Your task to perform on an android device: Go to Yahoo.com Image 0: 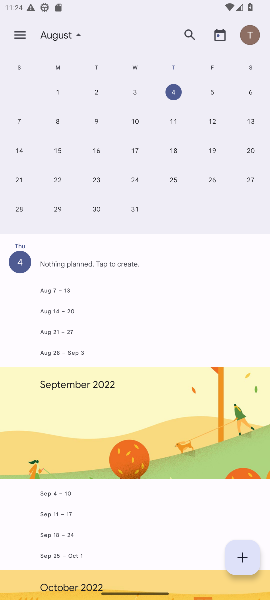
Step 0: press home button
Your task to perform on an android device: Go to Yahoo.com Image 1: 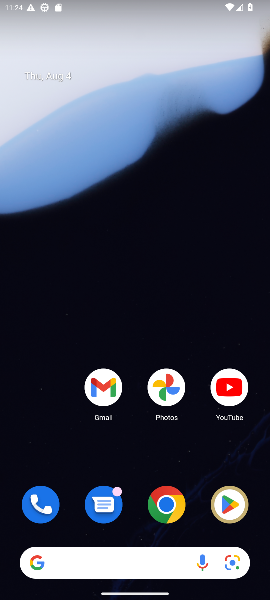
Step 1: click (165, 512)
Your task to perform on an android device: Go to Yahoo.com Image 2: 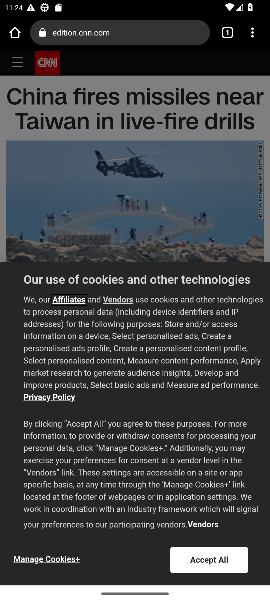
Step 2: click (123, 35)
Your task to perform on an android device: Go to Yahoo.com Image 3: 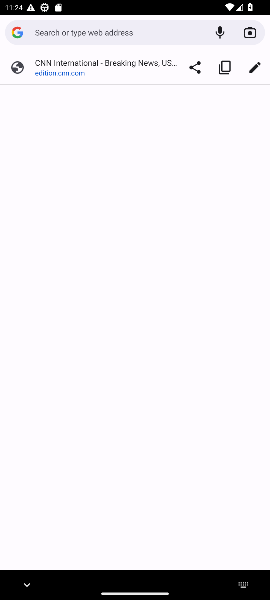
Step 3: type "yahoo.com"
Your task to perform on an android device: Go to Yahoo.com Image 4: 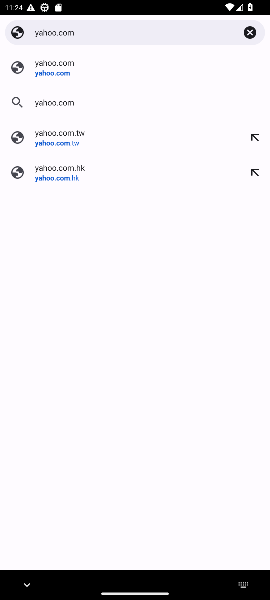
Step 4: click (70, 72)
Your task to perform on an android device: Go to Yahoo.com Image 5: 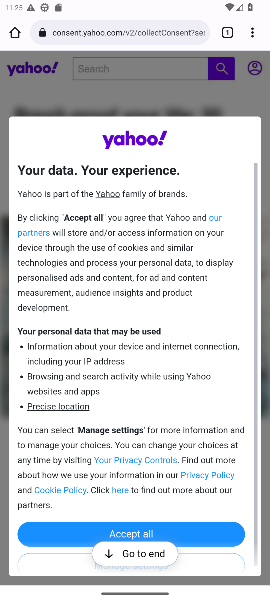
Step 5: task complete